Your task to perform on an android device: open device folders in google photos Image 0: 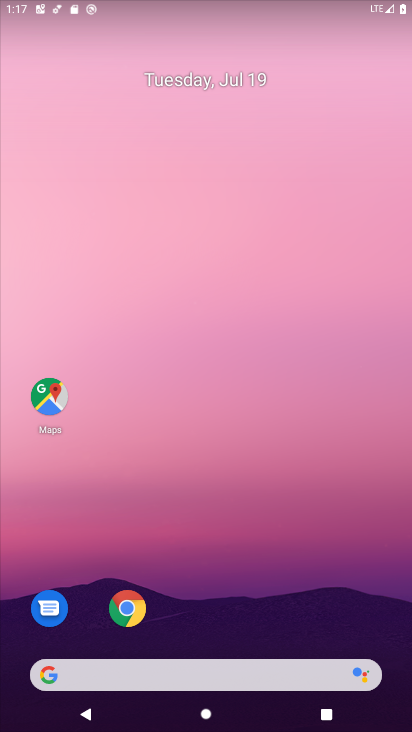
Step 0: drag from (216, 602) to (350, 0)
Your task to perform on an android device: open device folders in google photos Image 1: 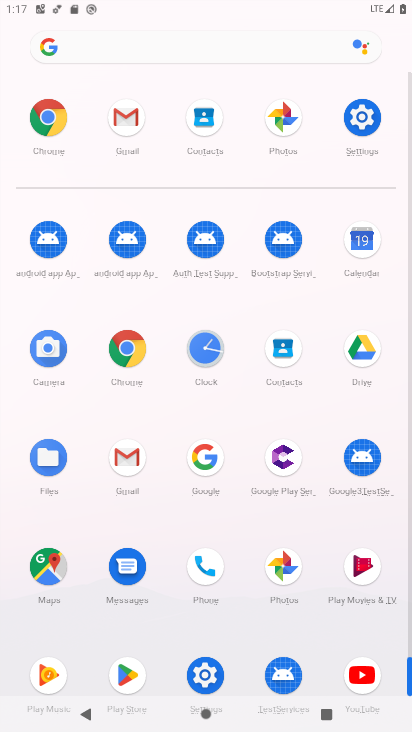
Step 1: click (282, 574)
Your task to perform on an android device: open device folders in google photos Image 2: 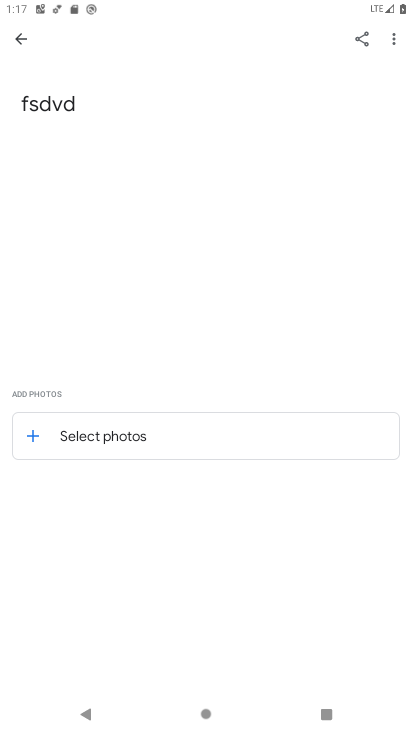
Step 2: press back button
Your task to perform on an android device: open device folders in google photos Image 3: 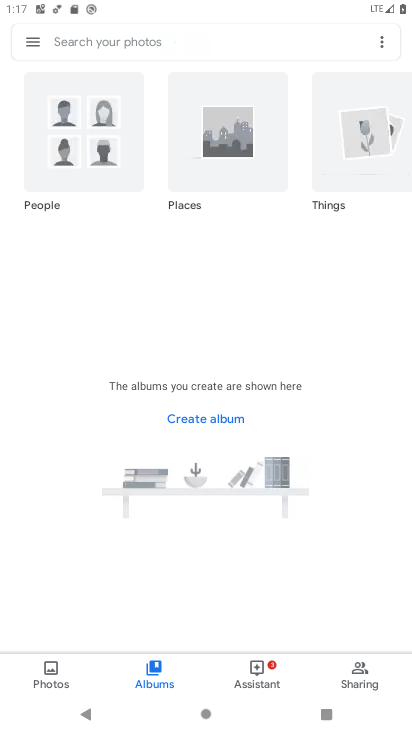
Step 3: click (40, 49)
Your task to perform on an android device: open device folders in google photos Image 4: 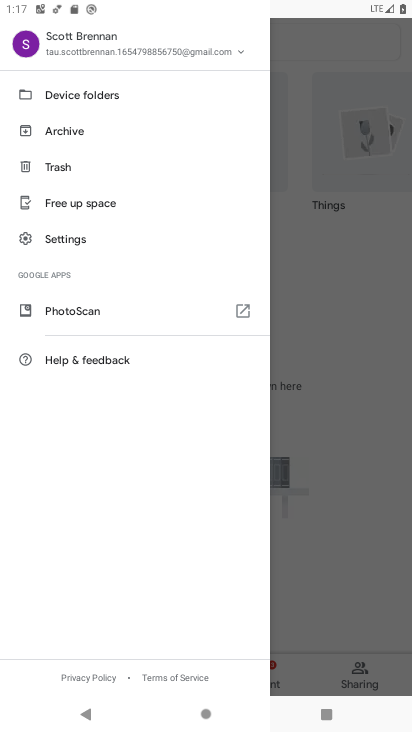
Step 4: click (93, 99)
Your task to perform on an android device: open device folders in google photos Image 5: 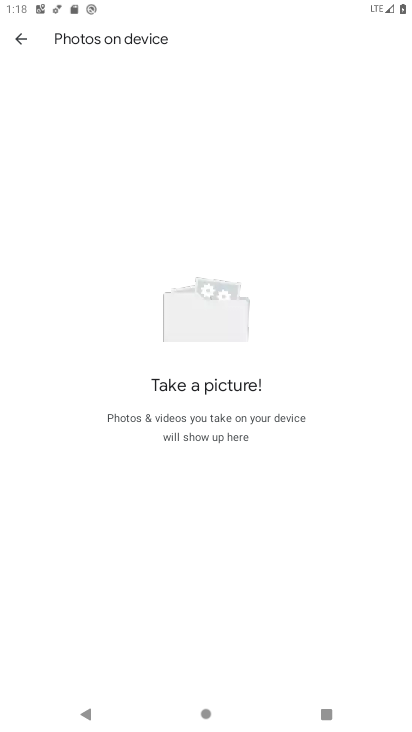
Step 5: task complete